Your task to perform on an android device: Open the stopwatch Image 0: 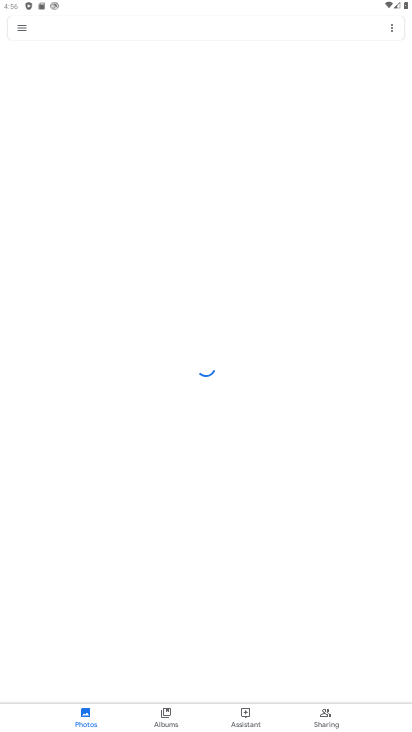
Step 0: press home button
Your task to perform on an android device: Open the stopwatch Image 1: 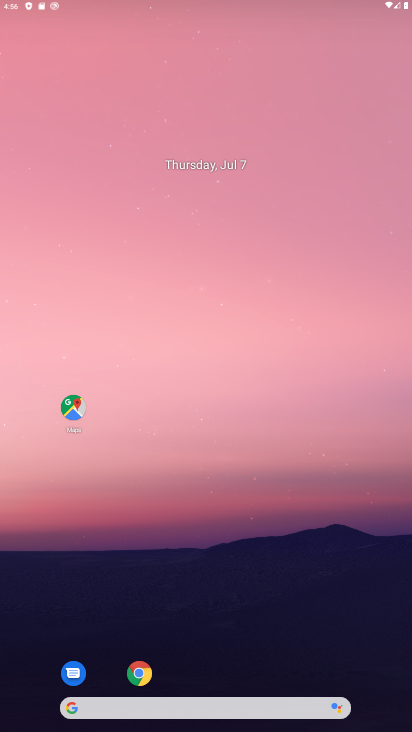
Step 1: drag from (278, 710) to (294, 153)
Your task to perform on an android device: Open the stopwatch Image 2: 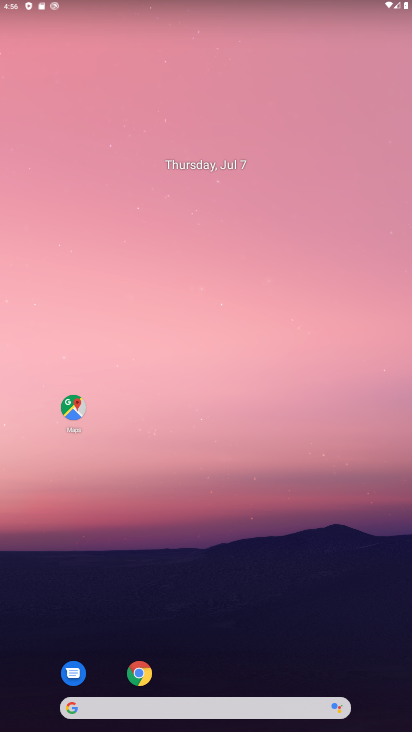
Step 2: drag from (295, 703) to (294, 27)
Your task to perform on an android device: Open the stopwatch Image 3: 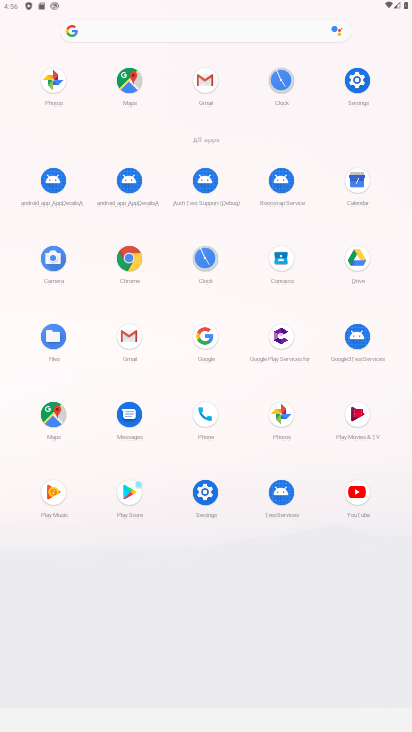
Step 3: click (274, 76)
Your task to perform on an android device: Open the stopwatch Image 4: 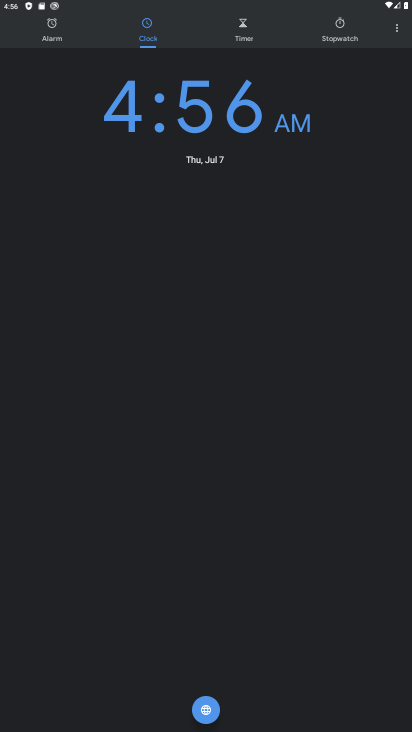
Step 4: click (328, 30)
Your task to perform on an android device: Open the stopwatch Image 5: 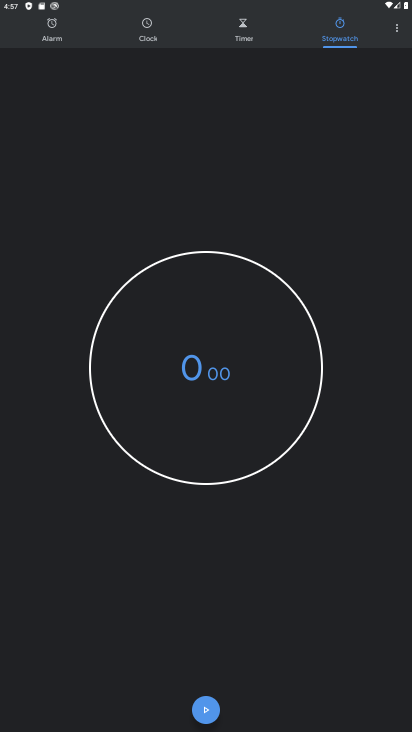
Step 5: click (201, 707)
Your task to perform on an android device: Open the stopwatch Image 6: 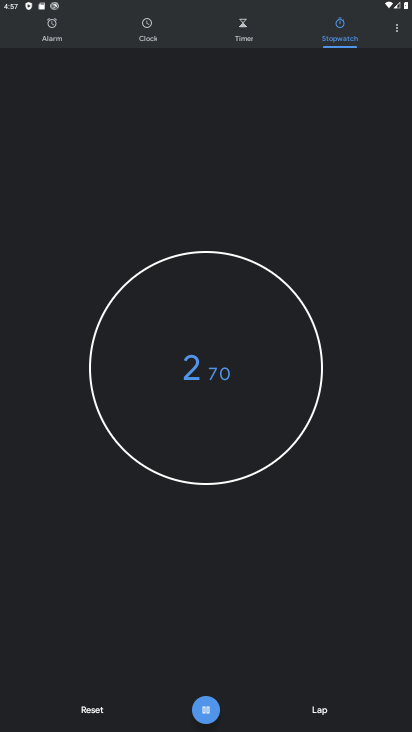
Step 6: task complete